Your task to perform on an android device: Go to CNN.com Image 0: 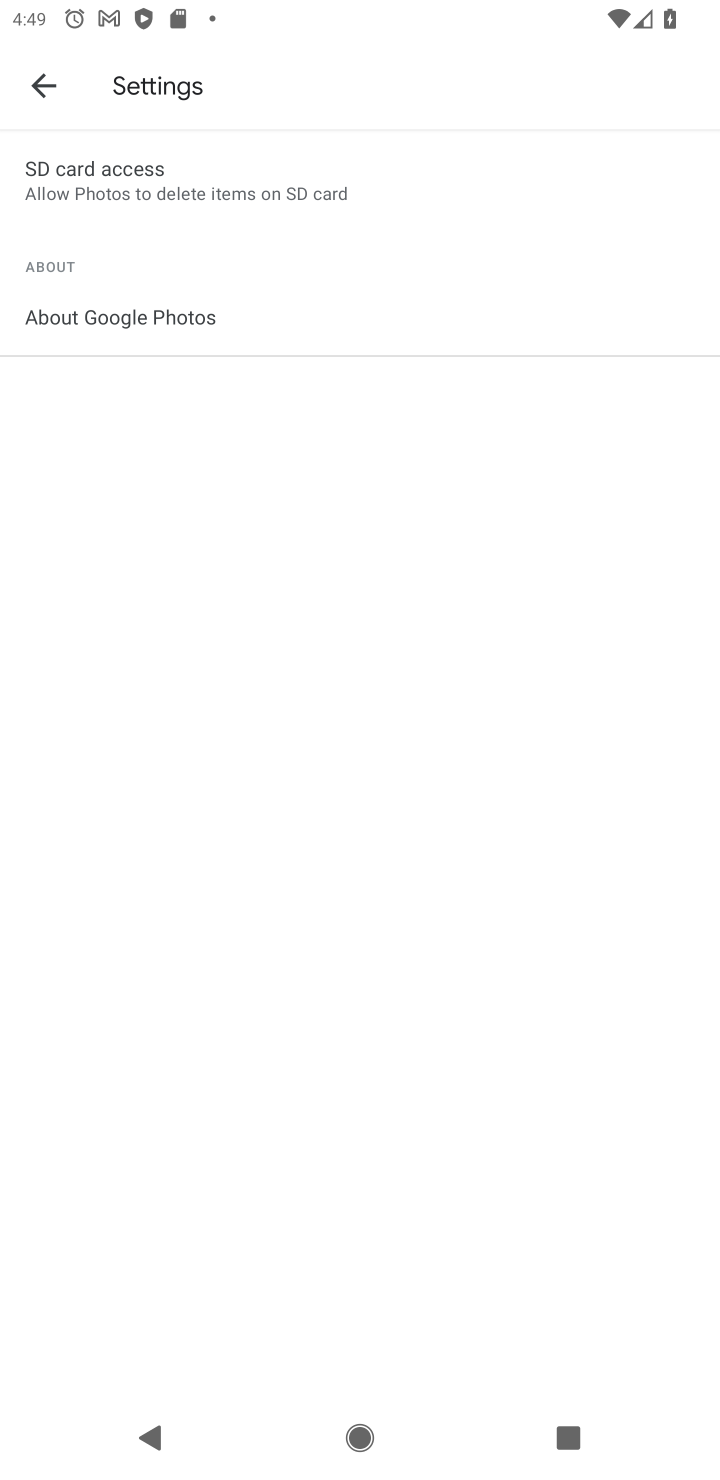
Step 0: press home button
Your task to perform on an android device: Go to CNN.com Image 1: 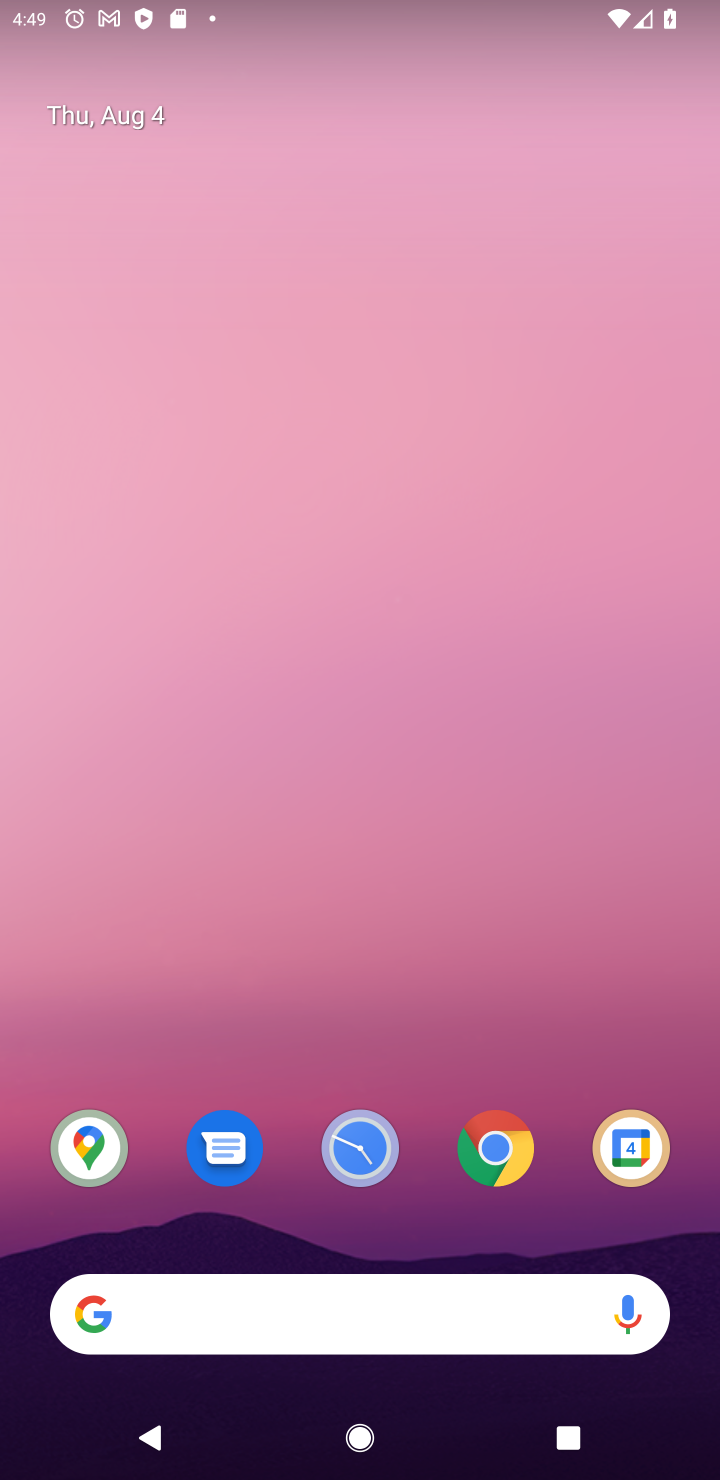
Step 1: click (496, 1154)
Your task to perform on an android device: Go to CNN.com Image 2: 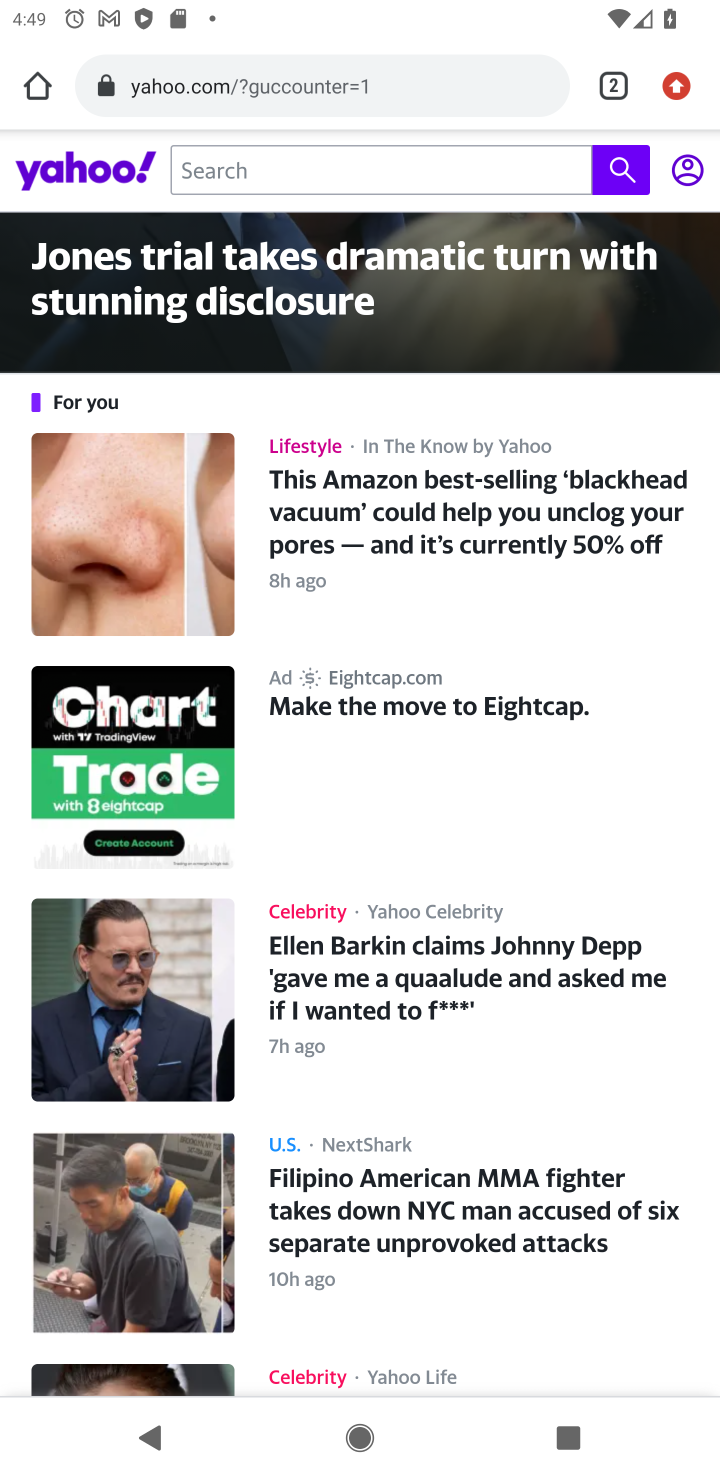
Step 2: click (437, 78)
Your task to perform on an android device: Go to CNN.com Image 3: 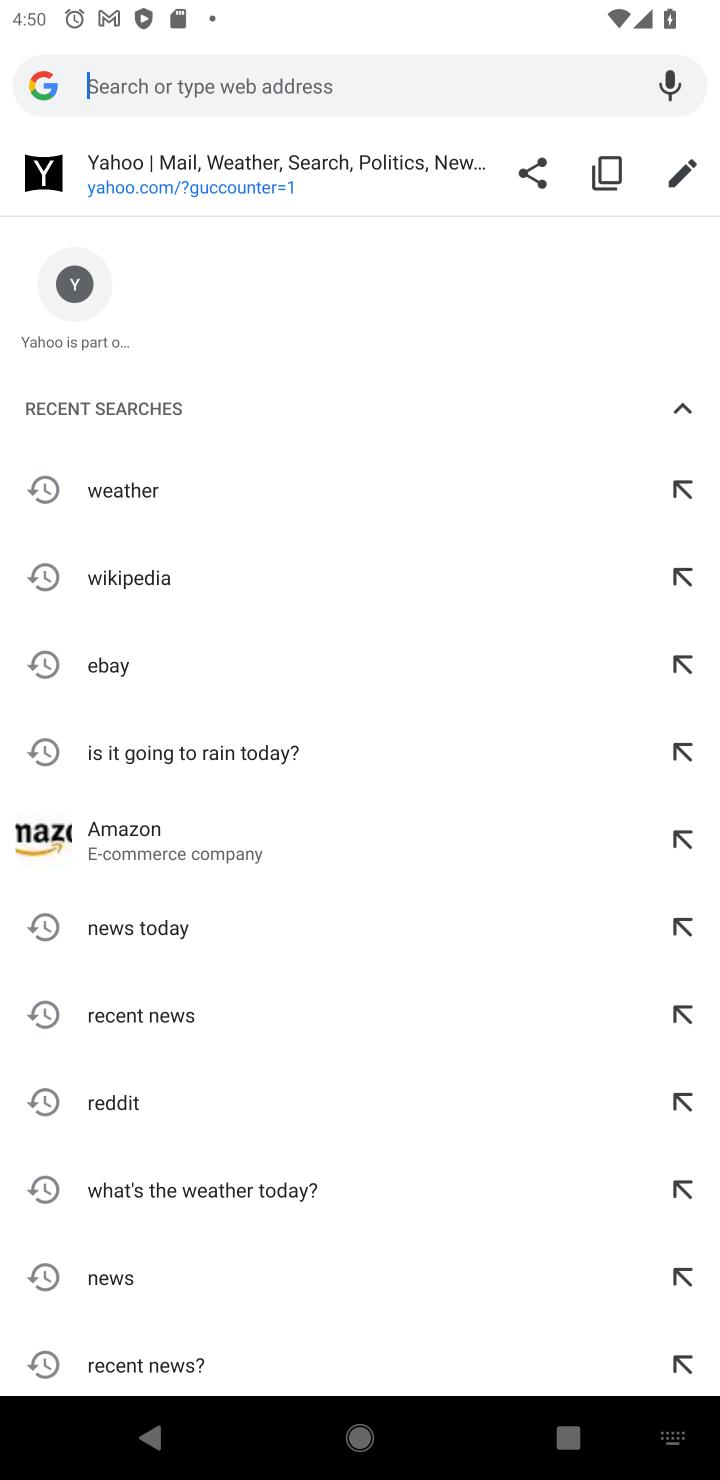
Step 3: type "CNN.com"
Your task to perform on an android device: Go to CNN.com Image 4: 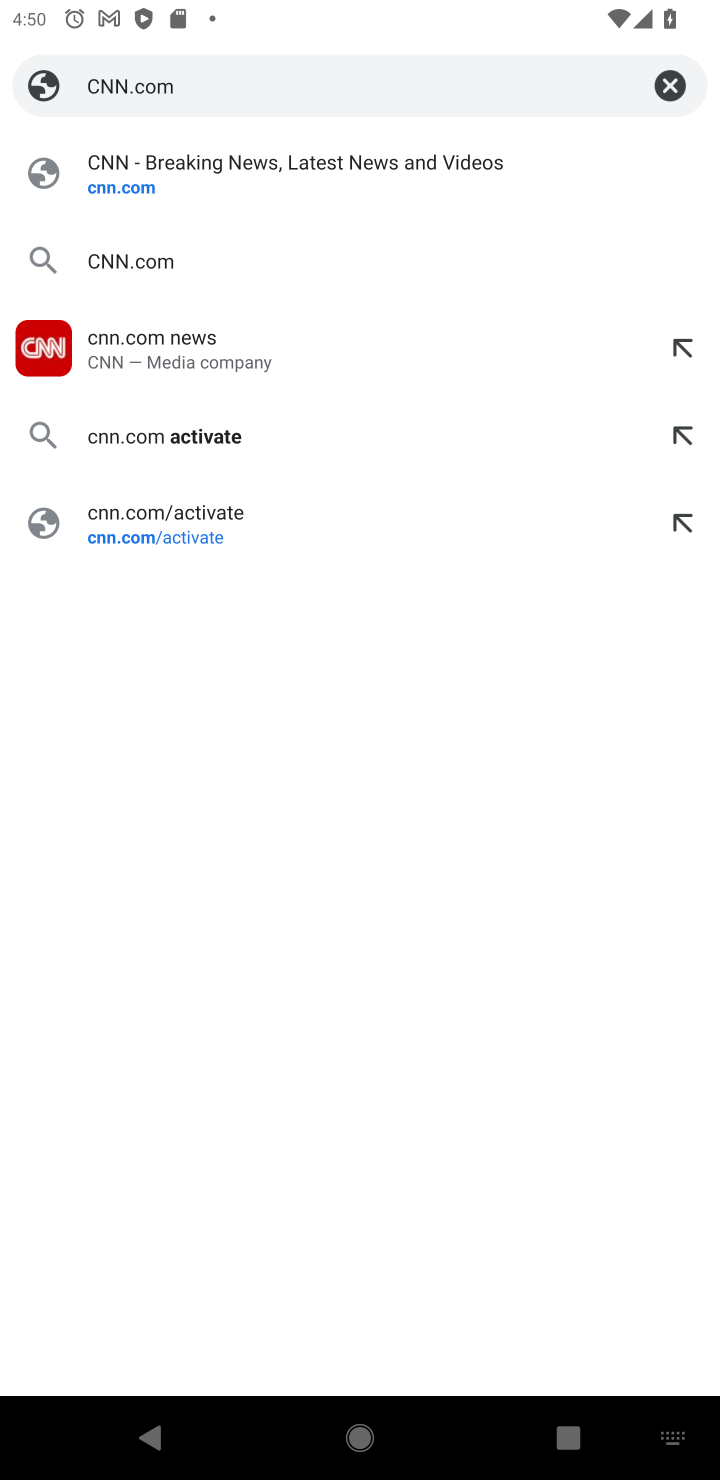
Step 4: click (140, 165)
Your task to perform on an android device: Go to CNN.com Image 5: 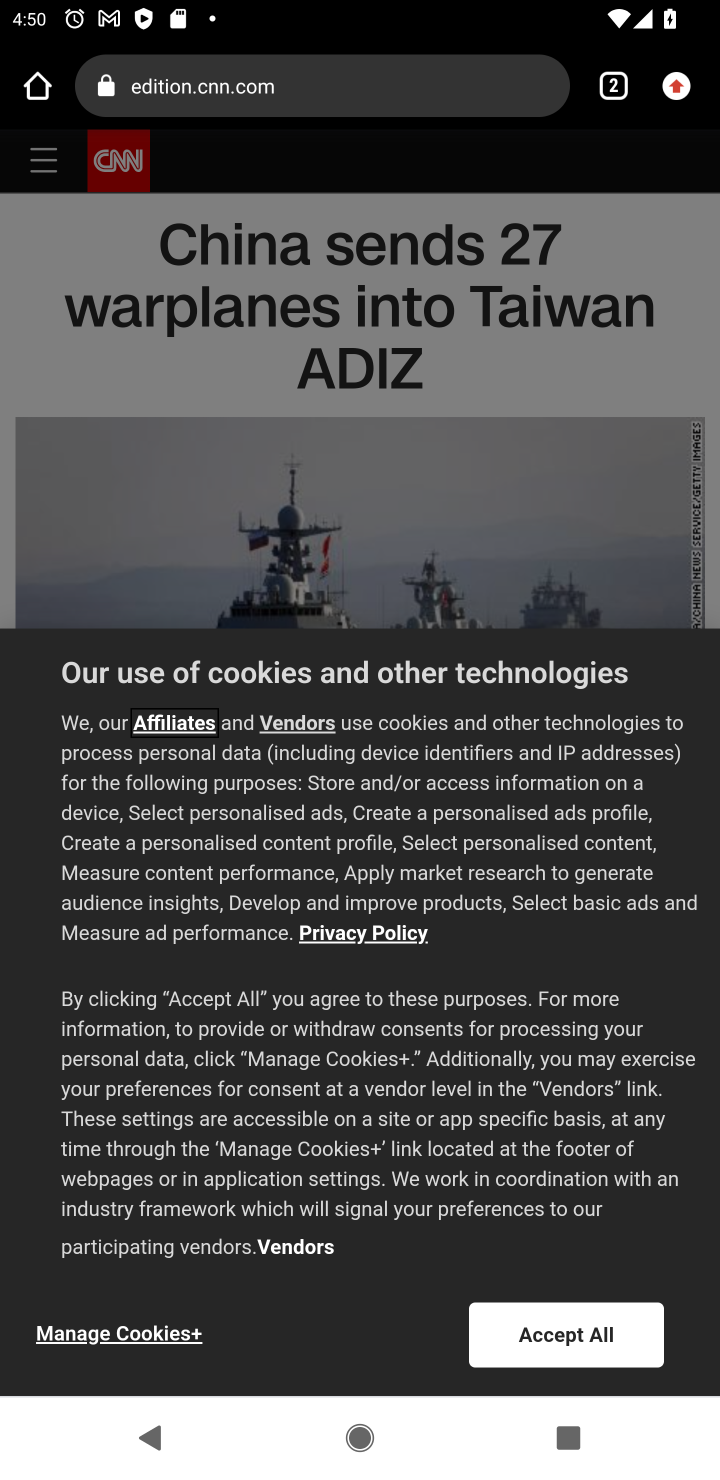
Step 5: click (546, 1328)
Your task to perform on an android device: Go to CNN.com Image 6: 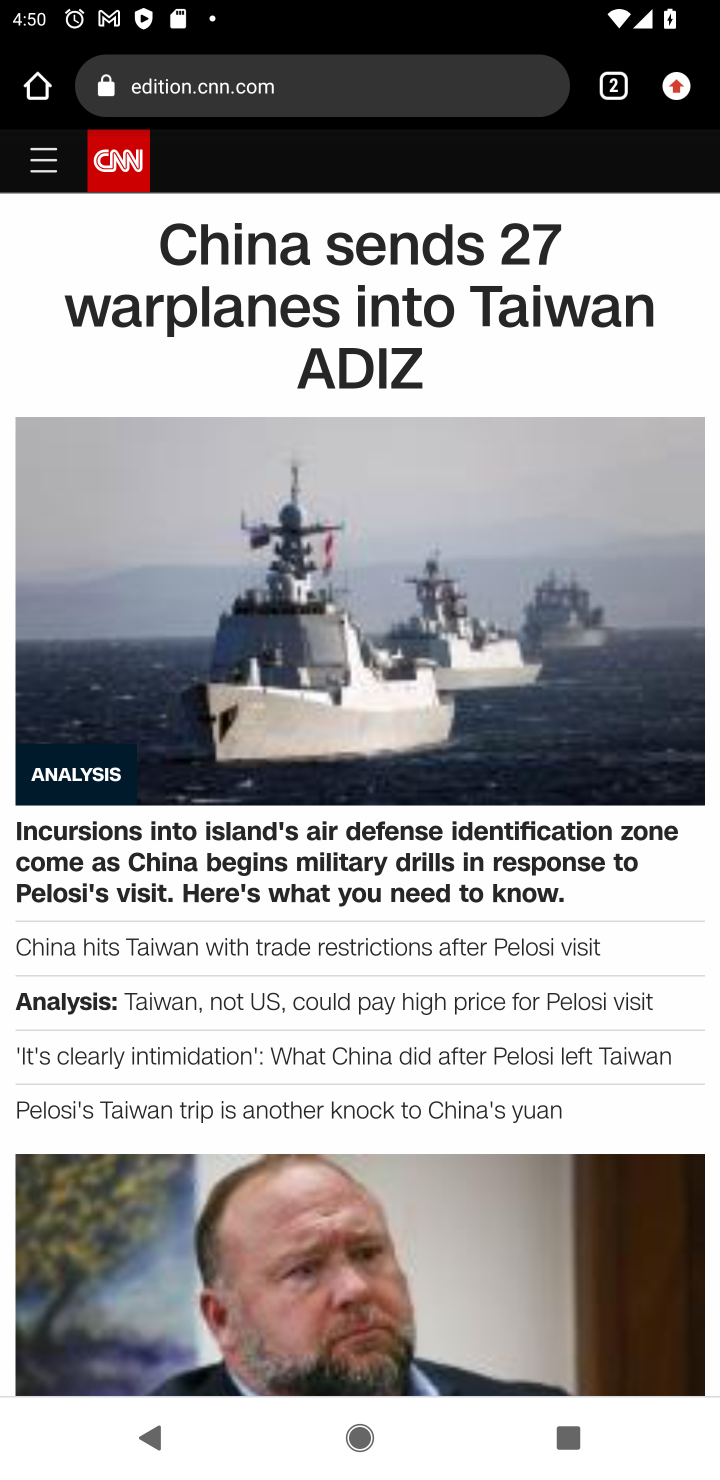
Step 6: task complete